Your task to perform on an android device: set an alarm Image 0: 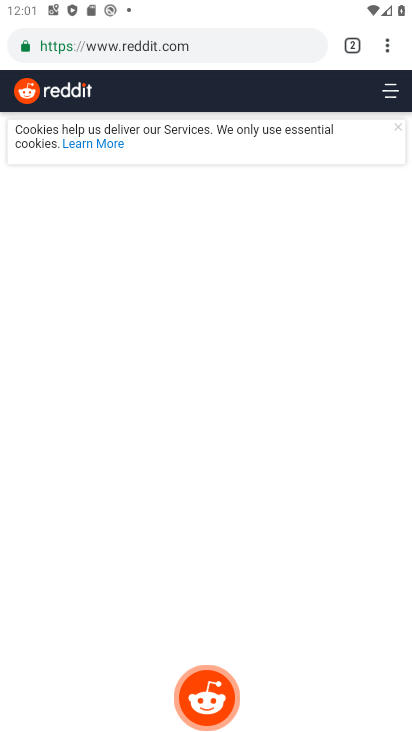
Step 0: press home button
Your task to perform on an android device: set an alarm Image 1: 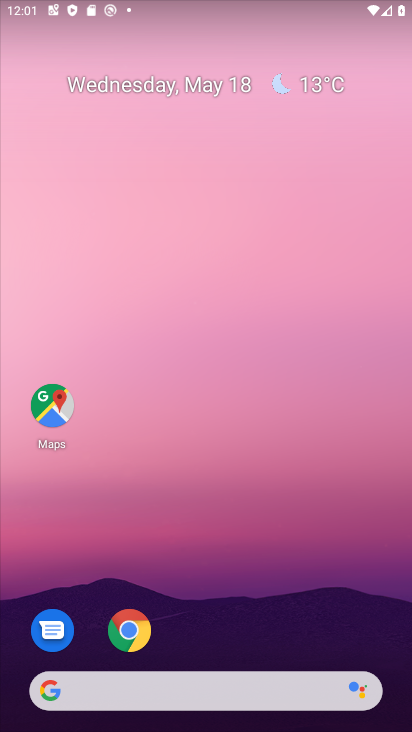
Step 1: drag from (218, 722) to (219, 232)
Your task to perform on an android device: set an alarm Image 2: 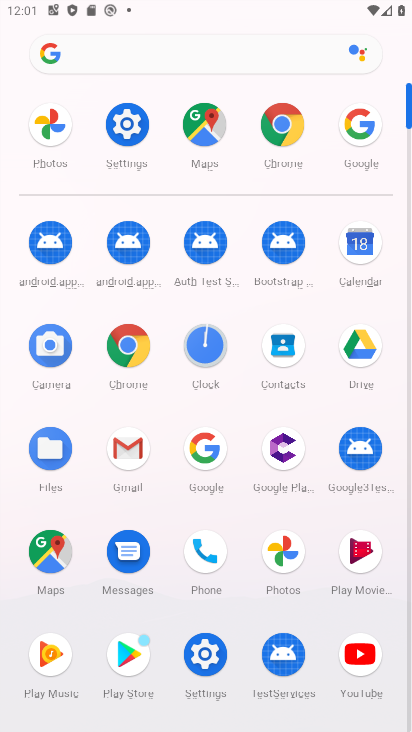
Step 2: click (207, 350)
Your task to perform on an android device: set an alarm Image 3: 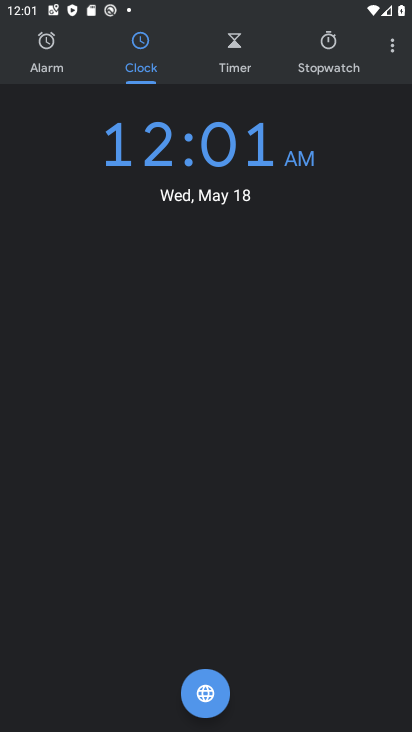
Step 3: click (51, 56)
Your task to perform on an android device: set an alarm Image 4: 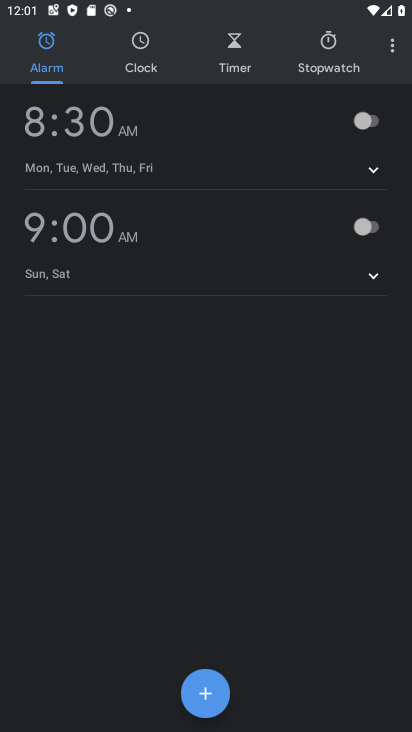
Step 4: click (209, 697)
Your task to perform on an android device: set an alarm Image 5: 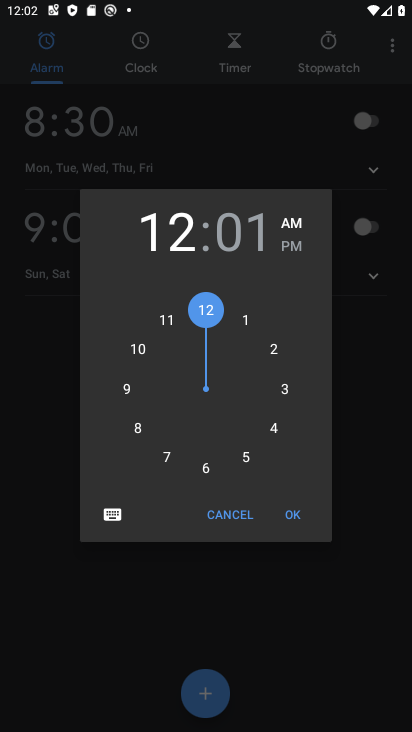
Step 5: click (203, 467)
Your task to perform on an android device: set an alarm Image 6: 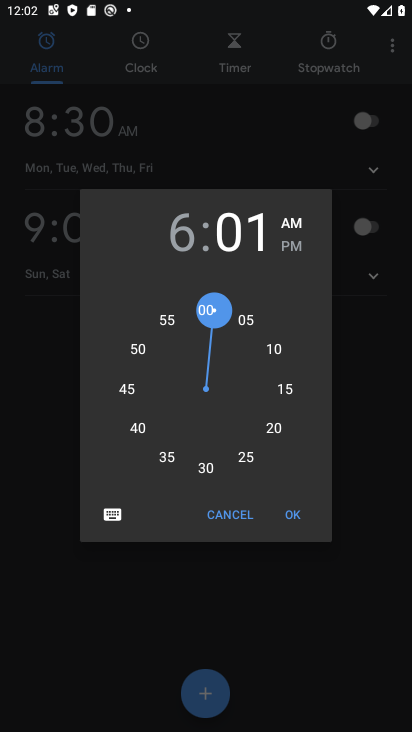
Step 6: click (251, 459)
Your task to perform on an android device: set an alarm Image 7: 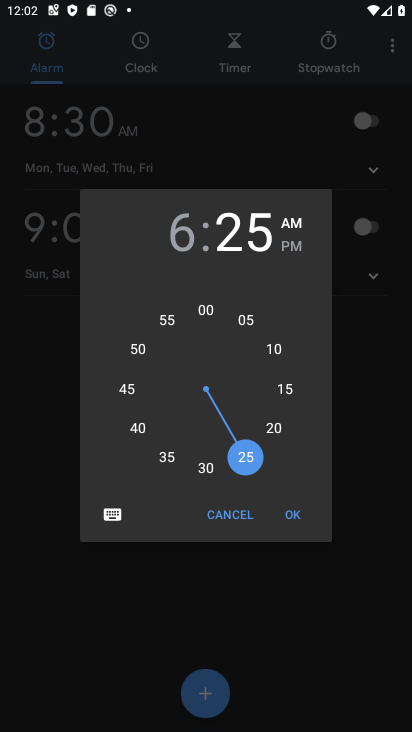
Step 7: click (290, 512)
Your task to perform on an android device: set an alarm Image 8: 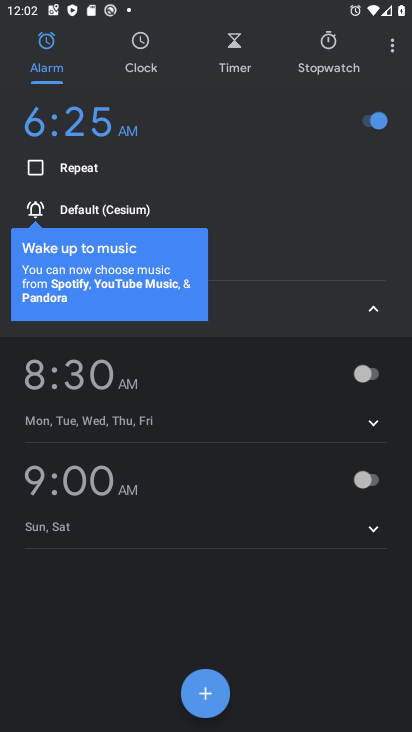
Step 8: task complete